Your task to perform on an android device: Go to Google Image 0: 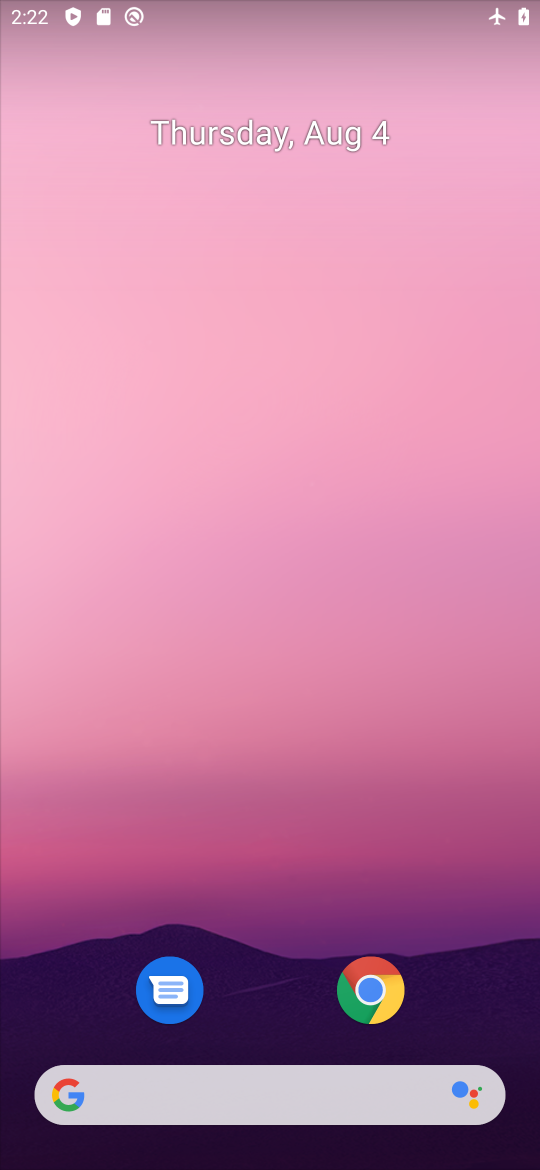
Step 0: click (216, 1088)
Your task to perform on an android device: Go to Google Image 1: 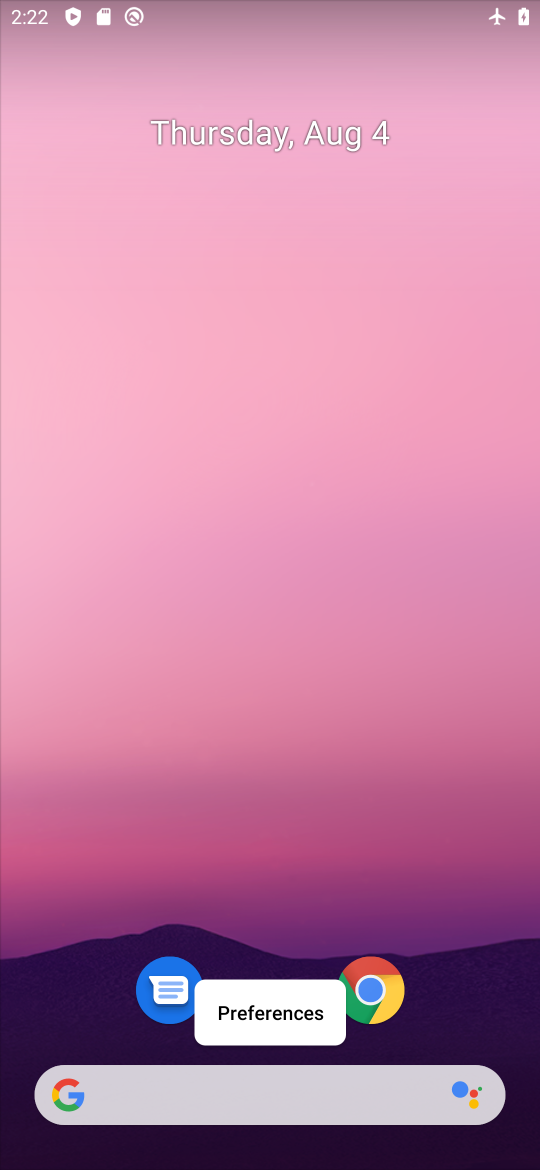
Step 1: click (216, 1088)
Your task to perform on an android device: Go to Google Image 2: 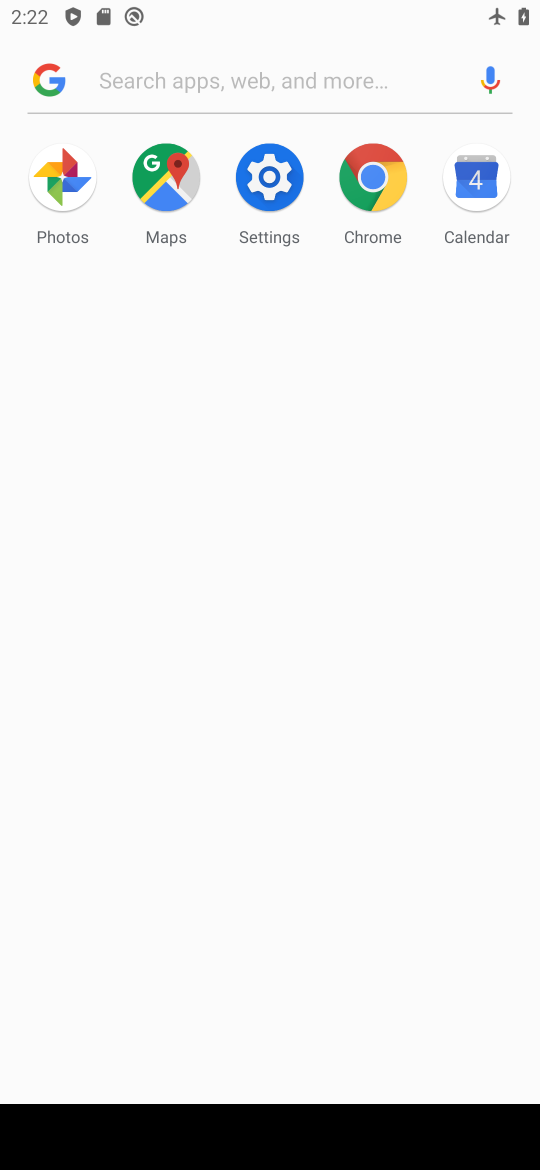
Step 2: type "google.com"
Your task to perform on an android device: Go to Google Image 3: 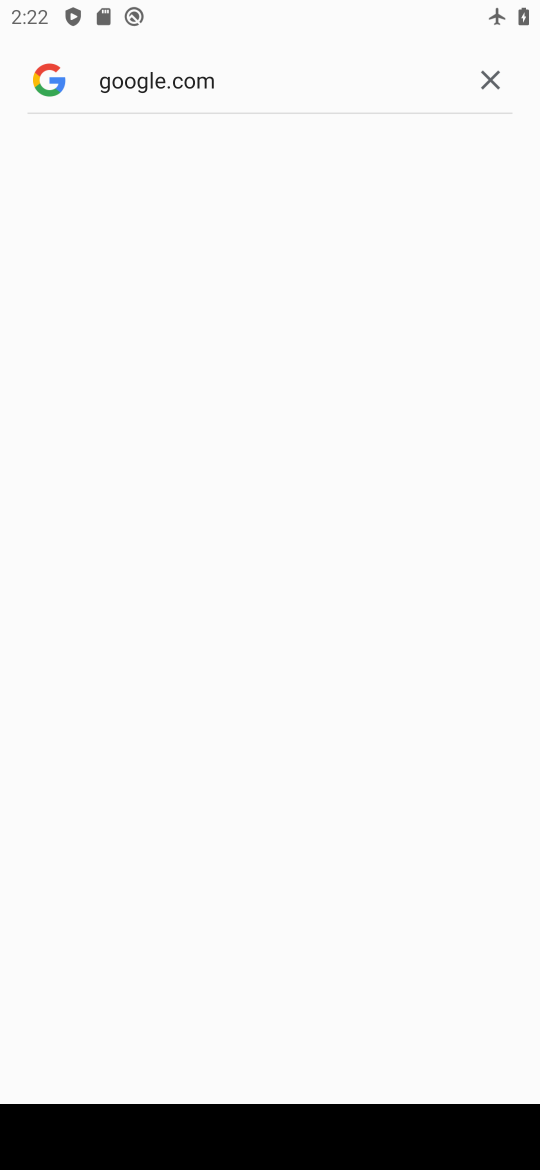
Step 3: task complete